Your task to perform on an android device: Open settings on Google Maps Image 0: 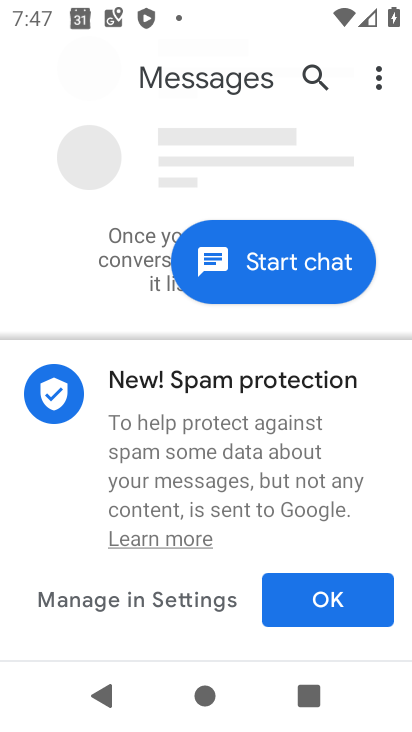
Step 0: press home button
Your task to perform on an android device: Open settings on Google Maps Image 1: 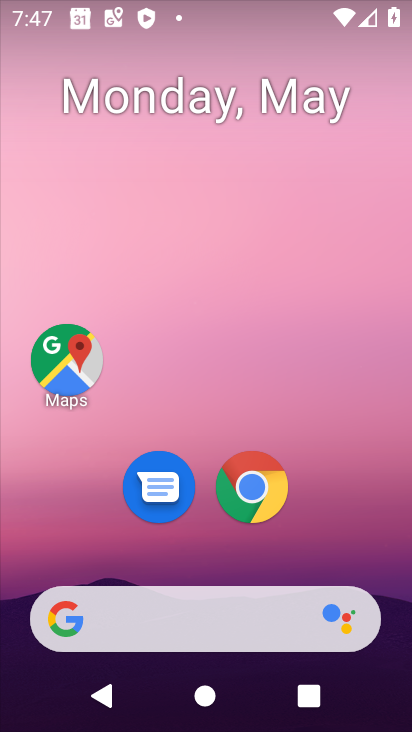
Step 1: drag from (370, 573) to (366, 107)
Your task to perform on an android device: Open settings on Google Maps Image 2: 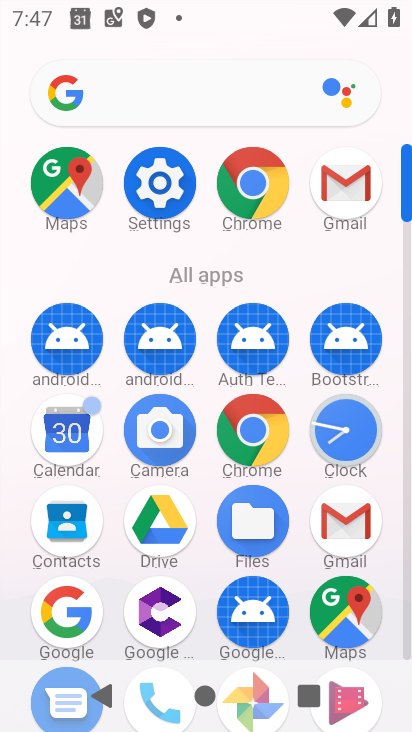
Step 2: click (350, 613)
Your task to perform on an android device: Open settings on Google Maps Image 3: 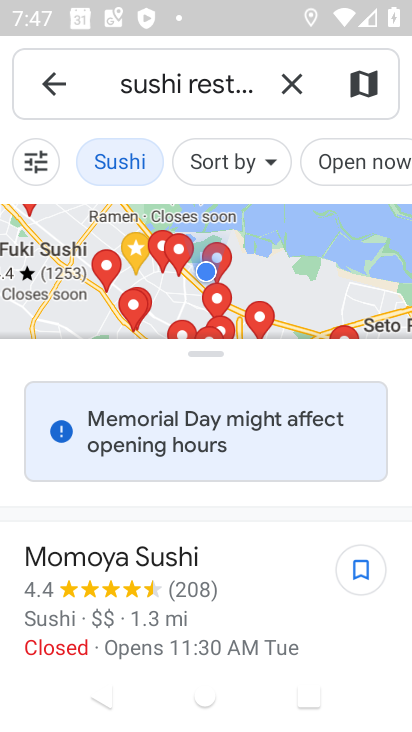
Step 3: click (65, 90)
Your task to perform on an android device: Open settings on Google Maps Image 4: 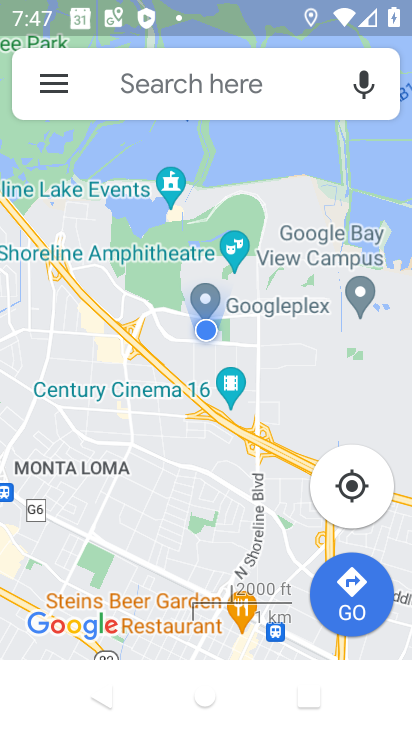
Step 4: click (65, 90)
Your task to perform on an android device: Open settings on Google Maps Image 5: 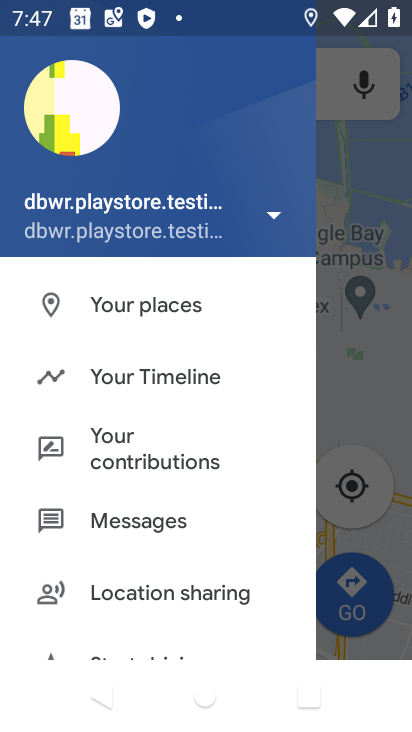
Step 5: drag from (256, 511) to (243, 322)
Your task to perform on an android device: Open settings on Google Maps Image 6: 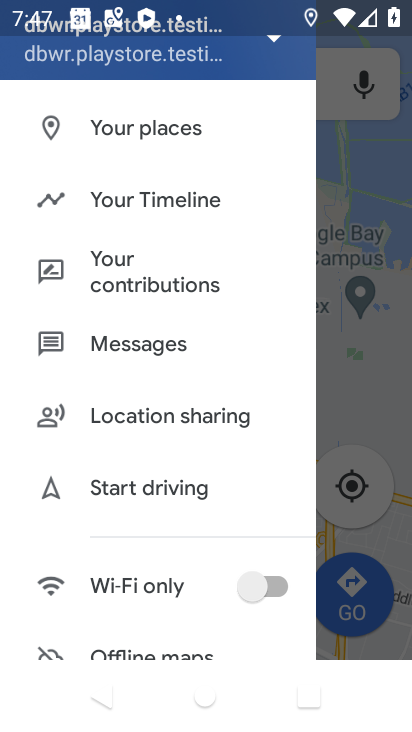
Step 6: drag from (220, 548) to (238, 380)
Your task to perform on an android device: Open settings on Google Maps Image 7: 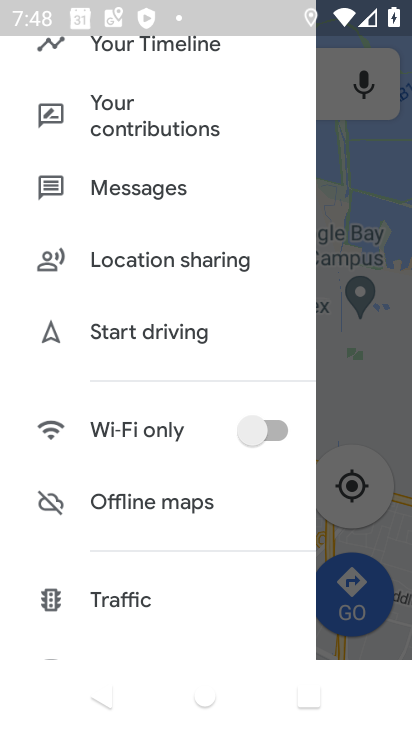
Step 7: drag from (236, 576) to (239, 369)
Your task to perform on an android device: Open settings on Google Maps Image 8: 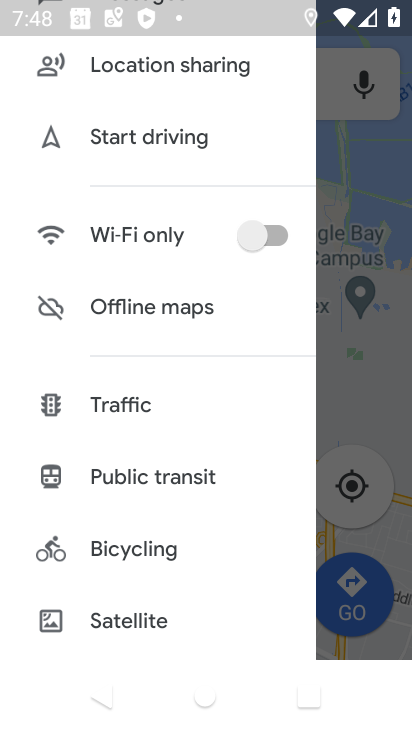
Step 8: drag from (229, 577) to (230, 413)
Your task to perform on an android device: Open settings on Google Maps Image 9: 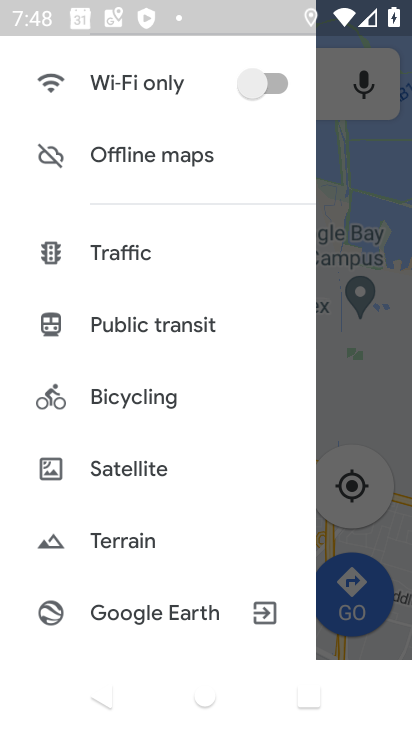
Step 9: drag from (223, 627) to (233, 421)
Your task to perform on an android device: Open settings on Google Maps Image 10: 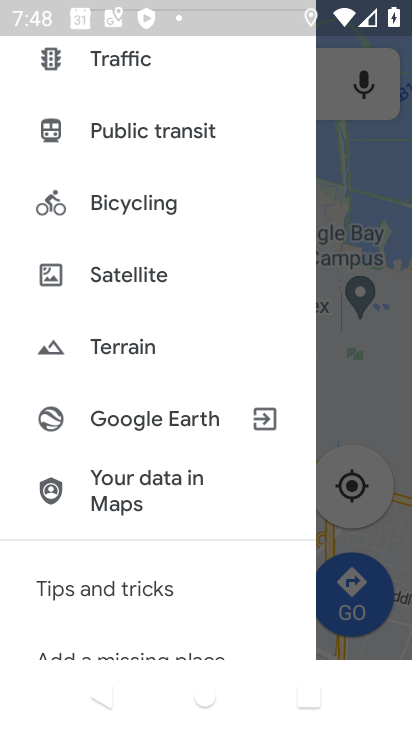
Step 10: drag from (224, 581) to (246, 369)
Your task to perform on an android device: Open settings on Google Maps Image 11: 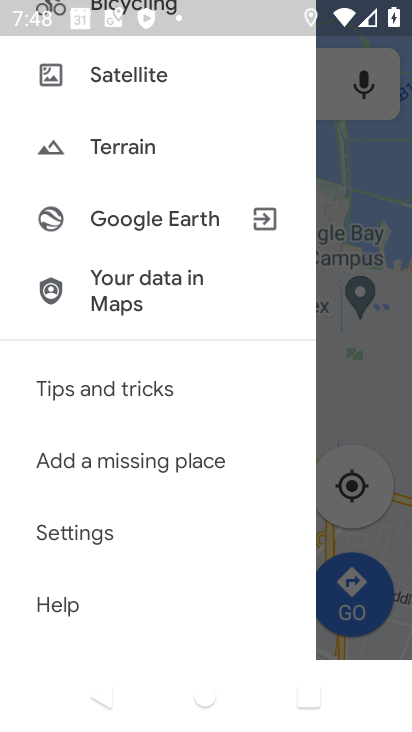
Step 11: drag from (249, 570) to (258, 408)
Your task to perform on an android device: Open settings on Google Maps Image 12: 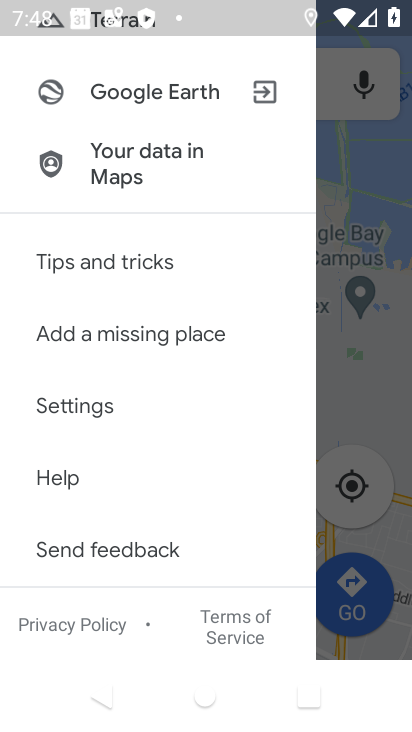
Step 12: click (142, 421)
Your task to perform on an android device: Open settings on Google Maps Image 13: 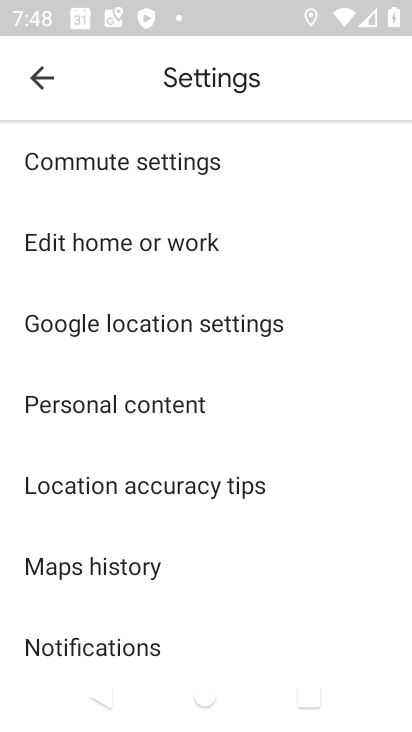
Step 13: task complete